Your task to perform on an android device: Open the Play Movies app and select the watchlist tab. Image 0: 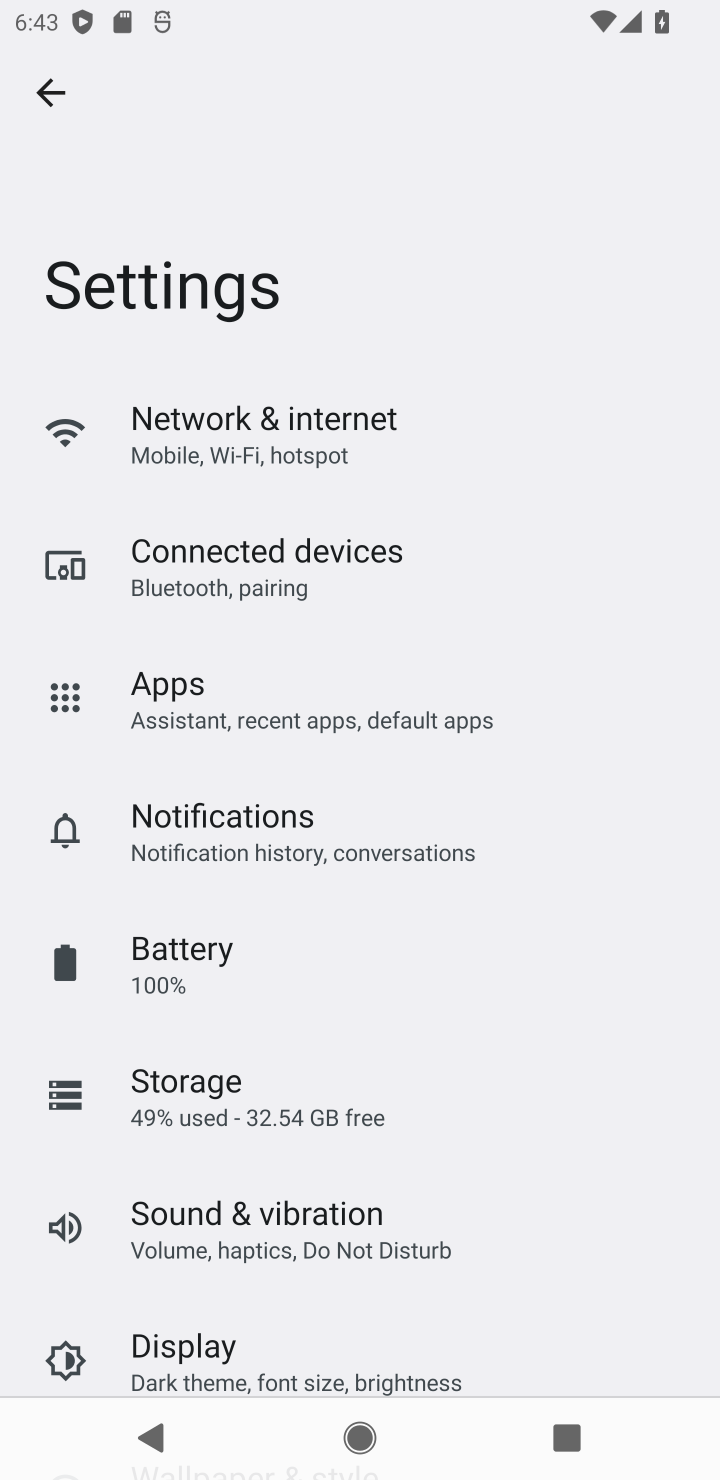
Step 0: press home button
Your task to perform on an android device: Open the Play Movies app and select the watchlist tab. Image 1: 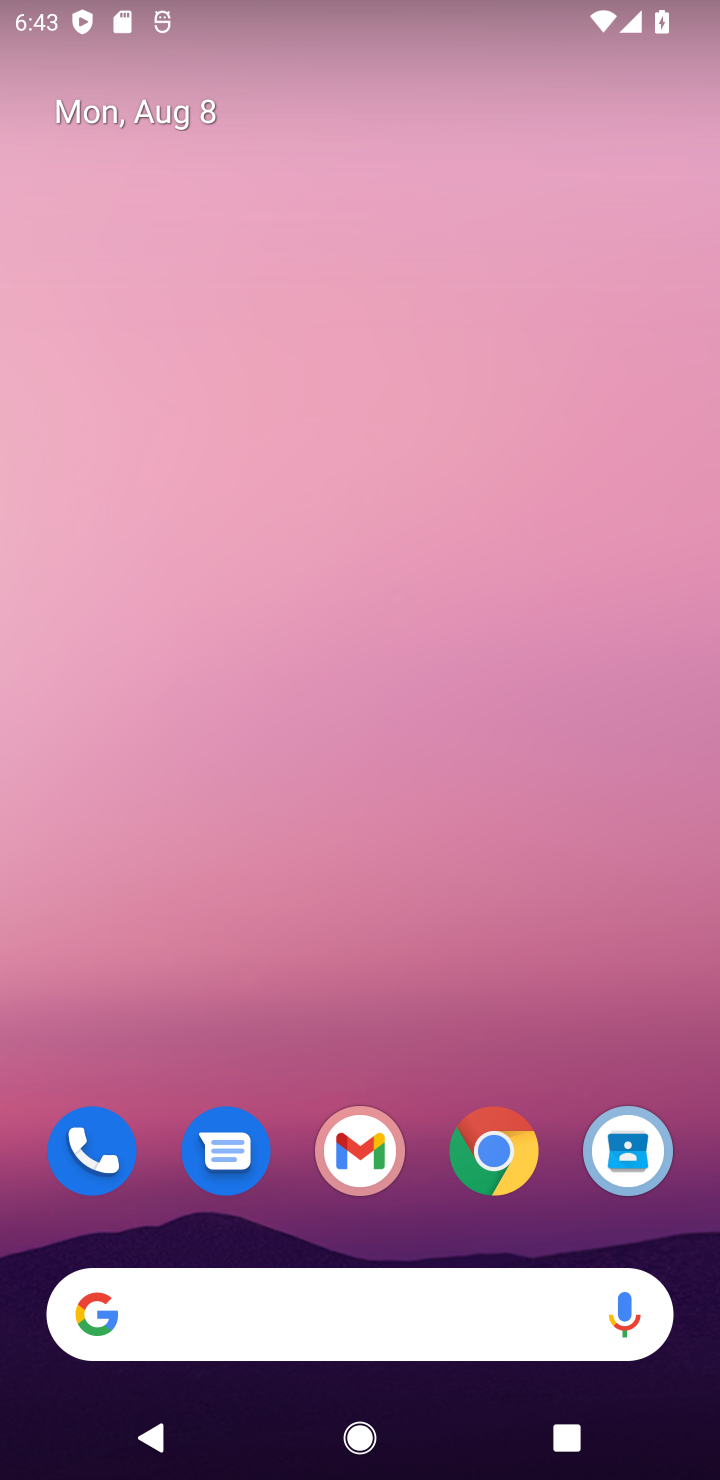
Step 1: task complete